Your task to perform on an android device: Open Reddit.com Image 0: 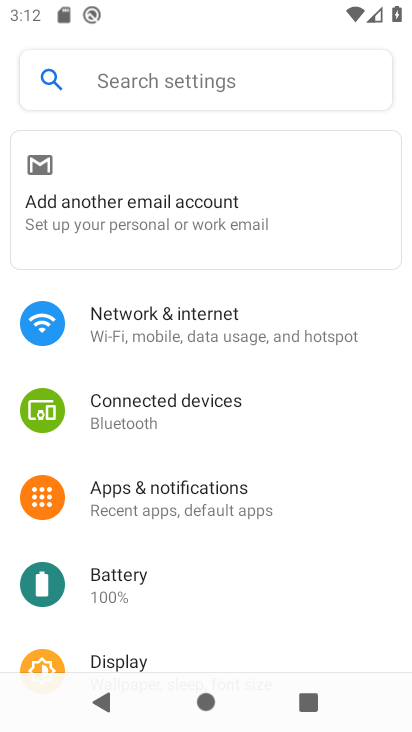
Step 0: press home button
Your task to perform on an android device: Open Reddit.com Image 1: 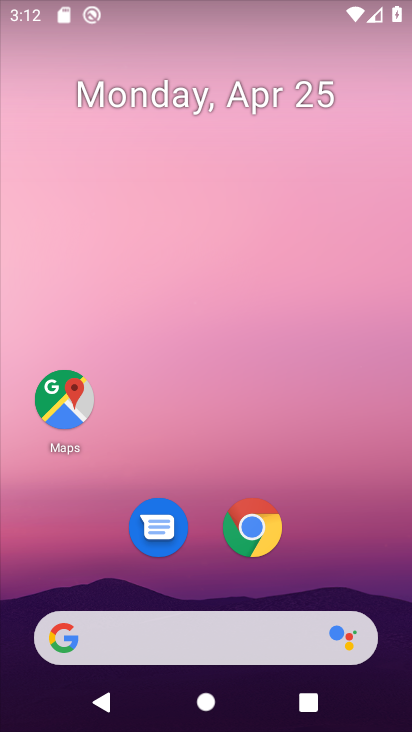
Step 1: click (245, 525)
Your task to perform on an android device: Open Reddit.com Image 2: 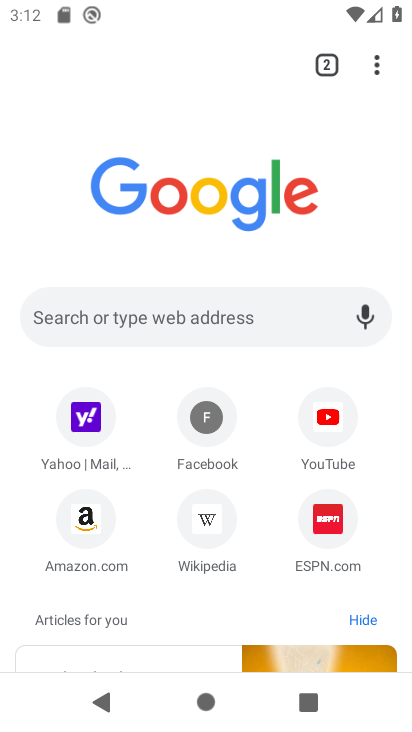
Step 2: click (161, 307)
Your task to perform on an android device: Open Reddit.com Image 3: 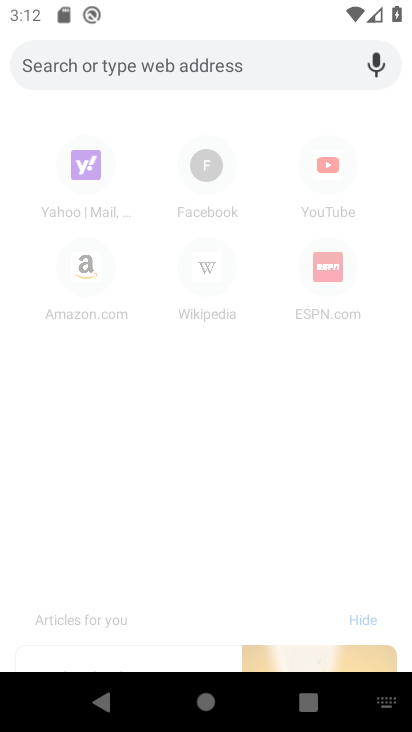
Step 3: type "reddit.com"
Your task to perform on an android device: Open Reddit.com Image 4: 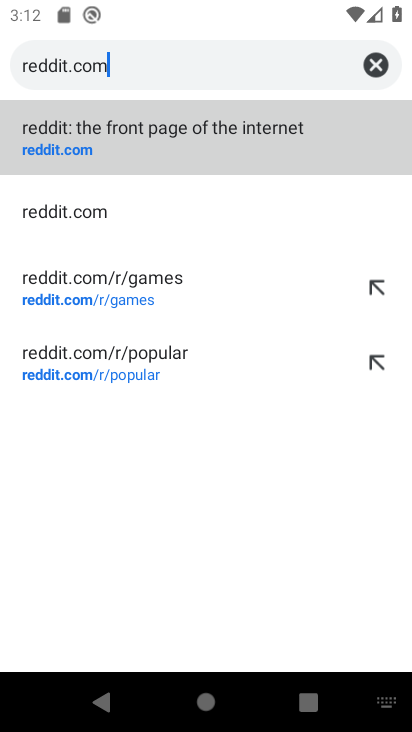
Step 4: click (87, 133)
Your task to perform on an android device: Open Reddit.com Image 5: 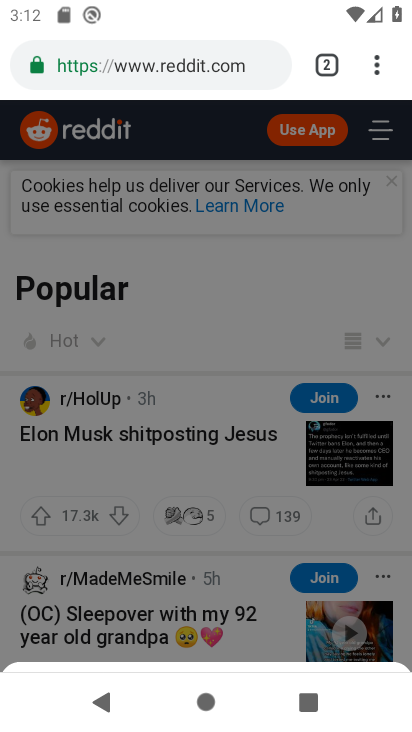
Step 5: task complete